Your task to perform on an android device: make emails show in primary in the gmail app Image 0: 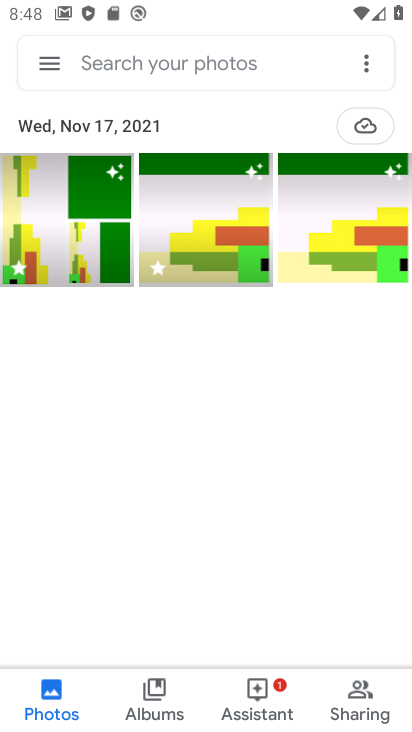
Step 0: press home button
Your task to perform on an android device: make emails show in primary in the gmail app Image 1: 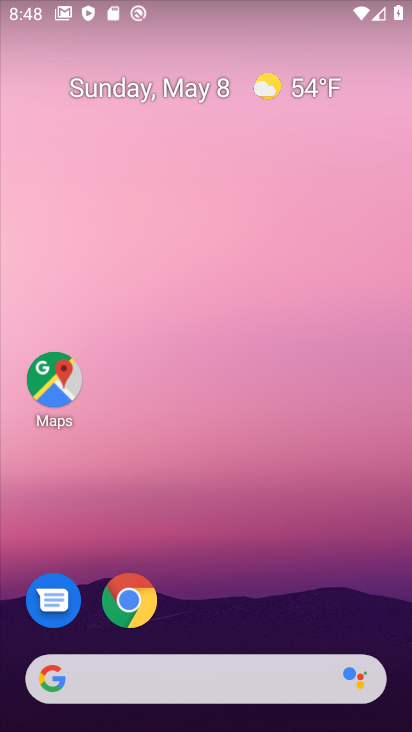
Step 1: drag from (242, 601) to (208, 142)
Your task to perform on an android device: make emails show in primary in the gmail app Image 2: 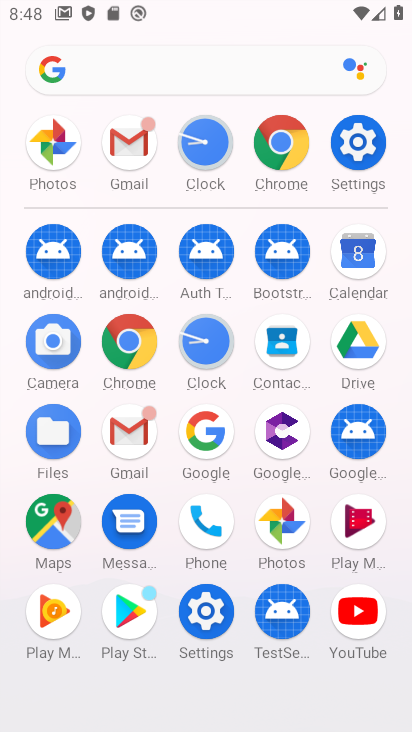
Step 2: click (131, 162)
Your task to perform on an android device: make emails show in primary in the gmail app Image 3: 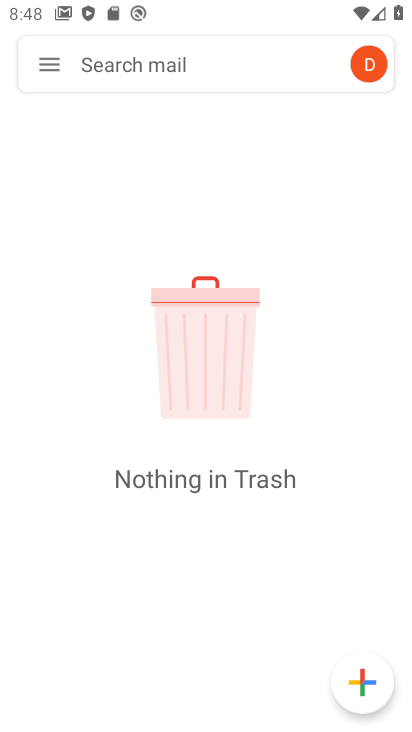
Step 3: click (53, 66)
Your task to perform on an android device: make emails show in primary in the gmail app Image 4: 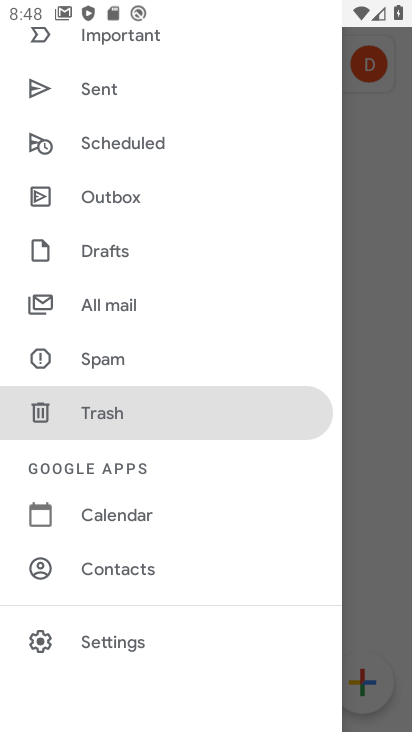
Step 4: task complete